Your task to perform on an android device: check google app version Image 0: 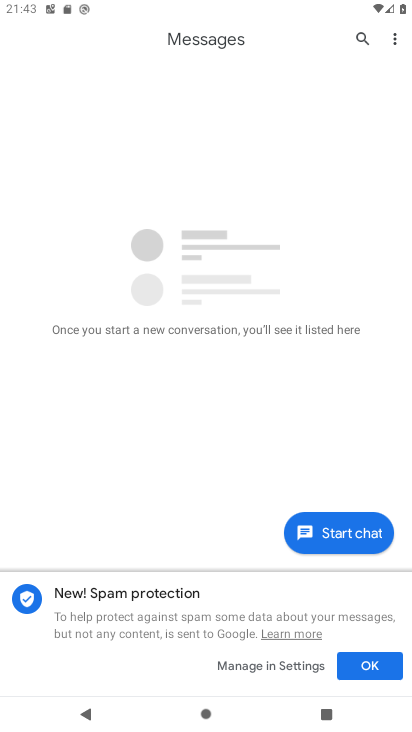
Step 0: press back button
Your task to perform on an android device: check google app version Image 1: 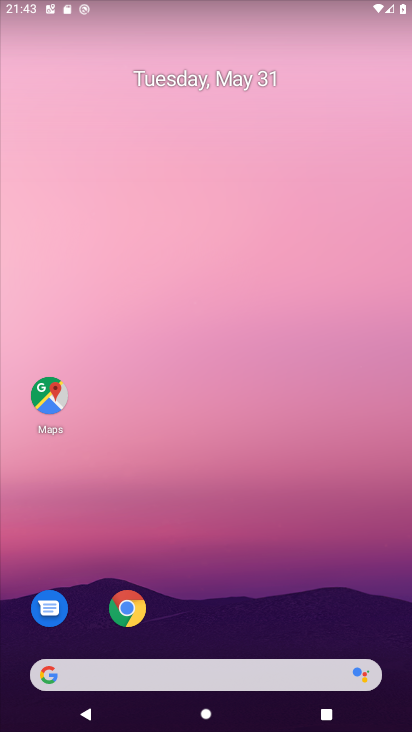
Step 1: drag from (242, 619) to (195, 91)
Your task to perform on an android device: check google app version Image 2: 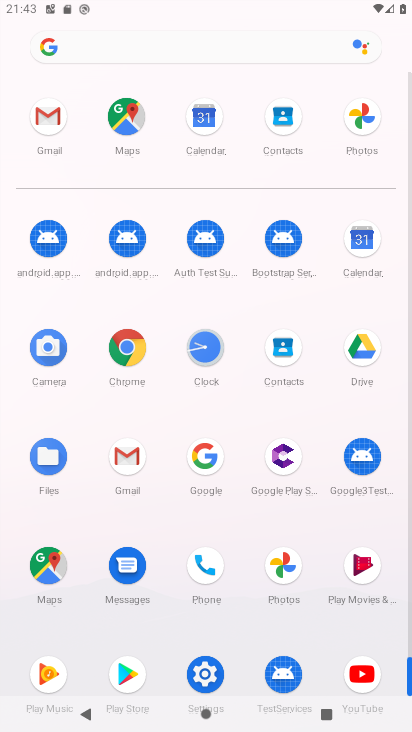
Step 2: click (201, 459)
Your task to perform on an android device: check google app version Image 3: 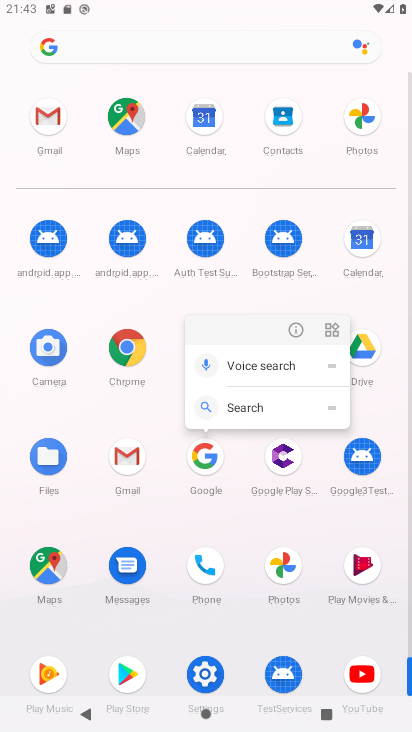
Step 3: click (296, 330)
Your task to perform on an android device: check google app version Image 4: 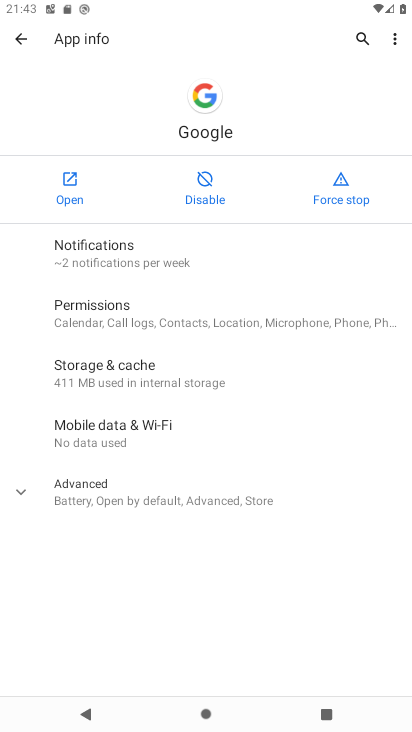
Step 4: click (130, 496)
Your task to perform on an android device: check google app version Image 5: 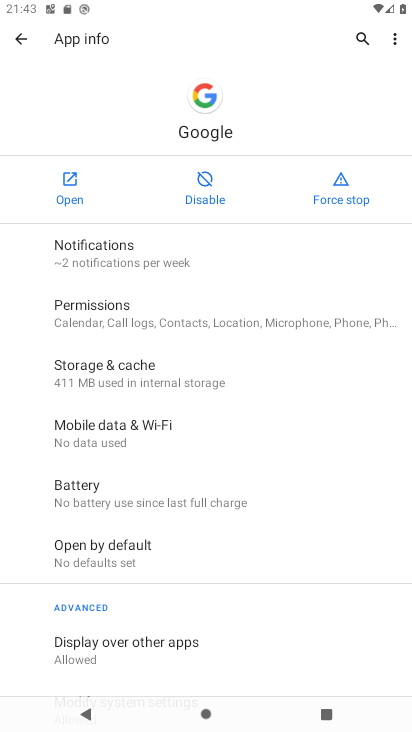
Step 5: task complete